Your task to perform on an android device: Open Maps and search for coffee Image 0: 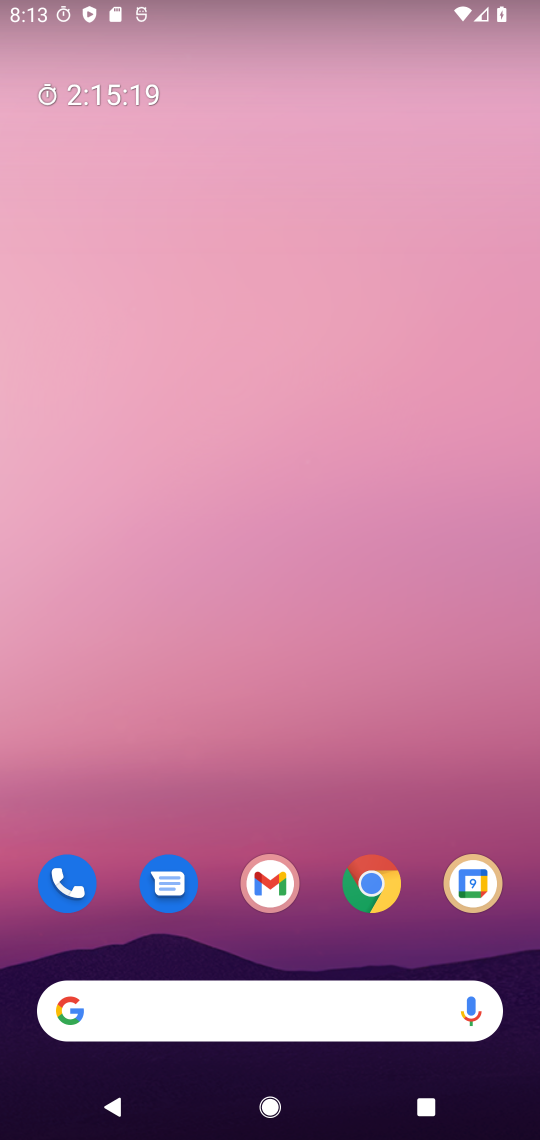
Step 0: drag from (255, 366) to (220, 142)
Your task to perform on an android device: Open Maps and search for coffee Image 1: 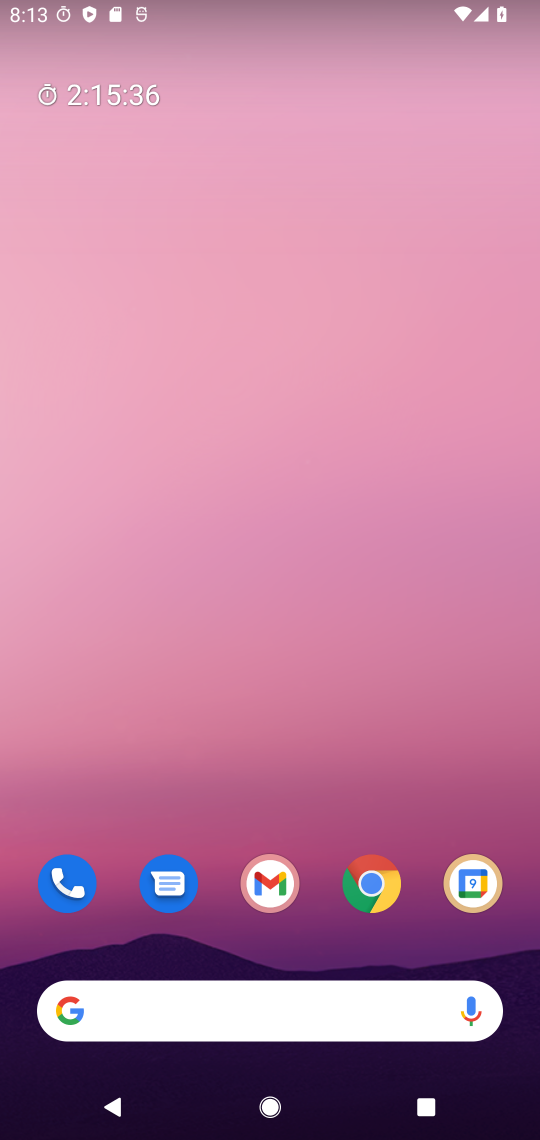
Step 1: drag from (280, 807) to (217, 183)
Your task to perform on an android device: Open Maps and search for coffee Image 2: 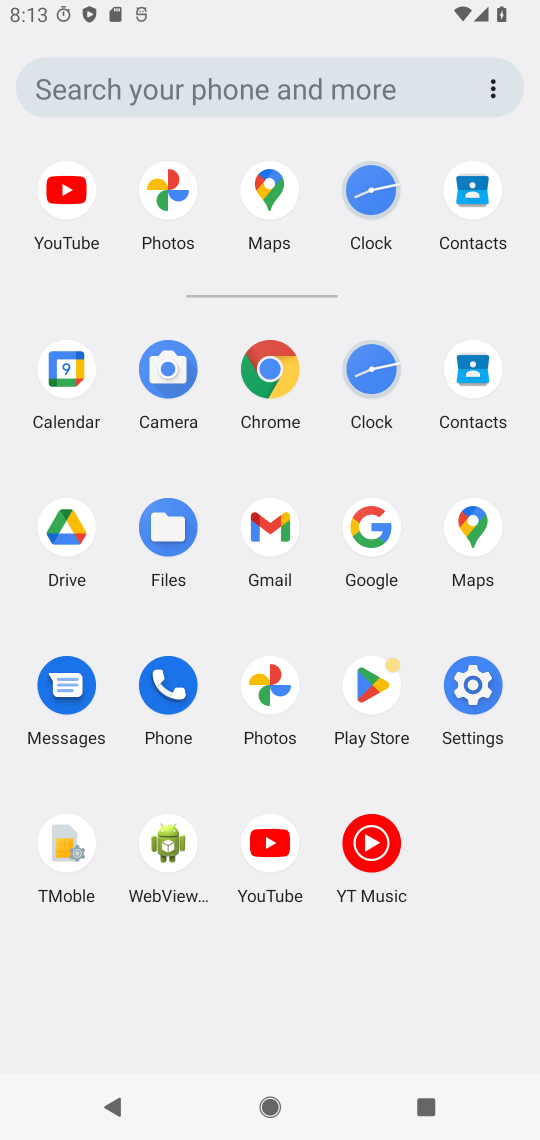
Step 2: click (290, 209)
Your task to perform on an android device: Open Maps and search for coffee Image 3: 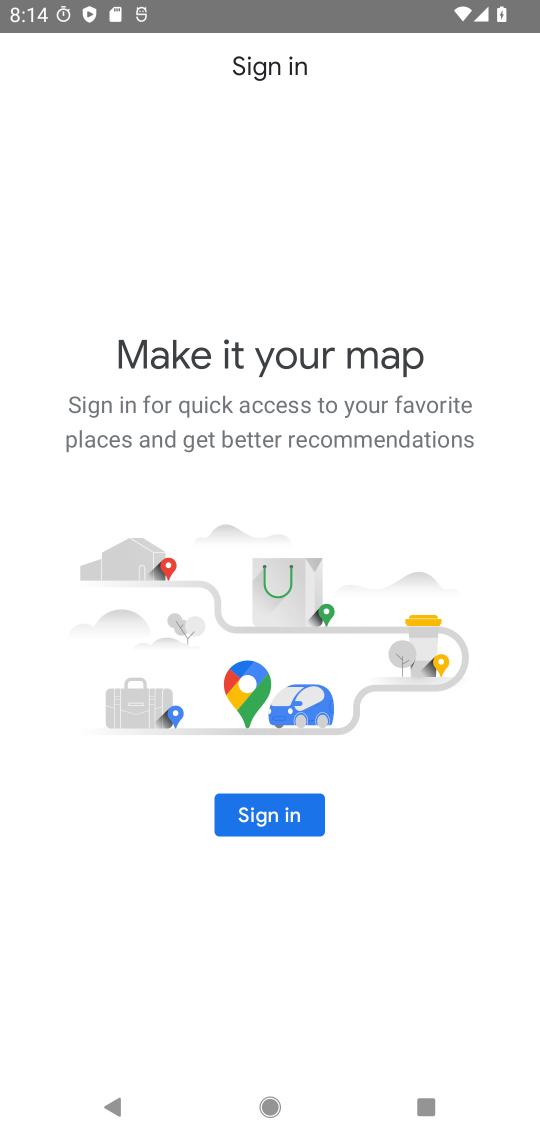
Step 3: task complete